Your task to perform on an android device: toggle improve location accuracy Image 0: 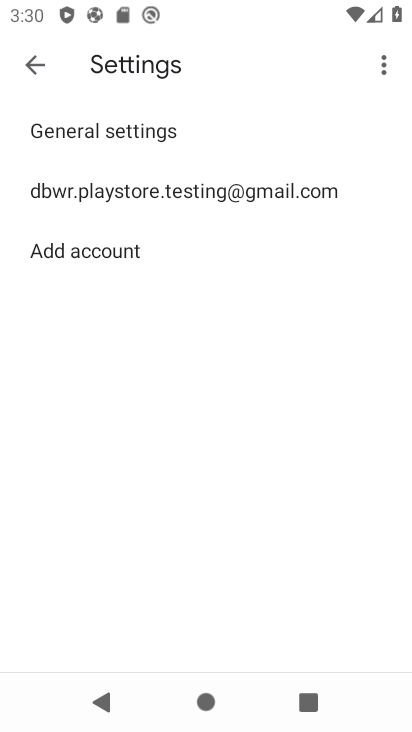
Step 0: press home button
Your task to perform on an android device: toggle improve location accuracy Image 1: 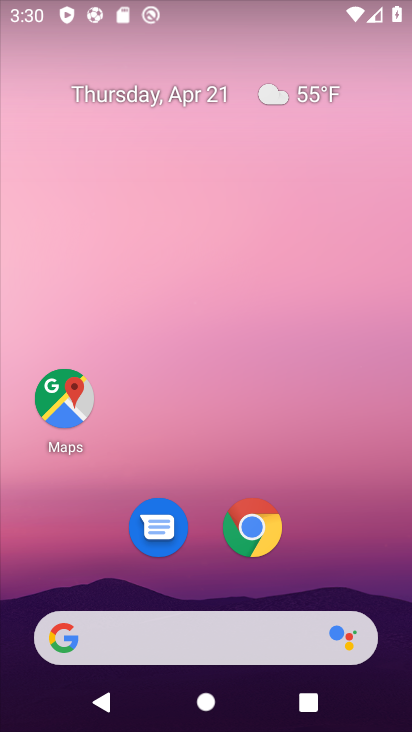
Step 1: drag from (364, 533) to (250, 179)
Your task to perform on an android device: toggle improve location accuracy Image 2: 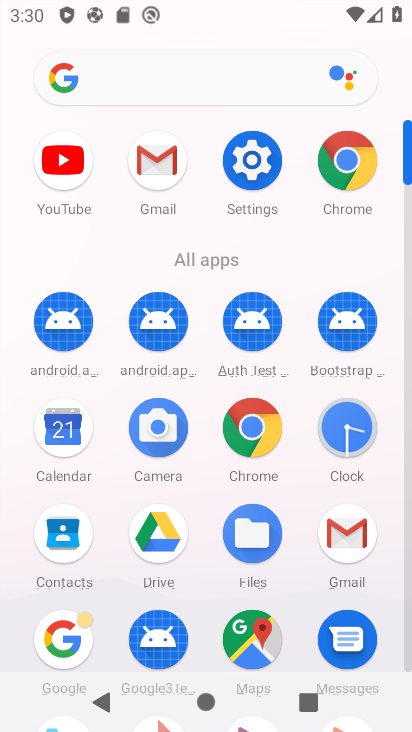
Step 2: click (242, 188)
Your task to perform on an android device: toggle improve location accuracy Image 3: 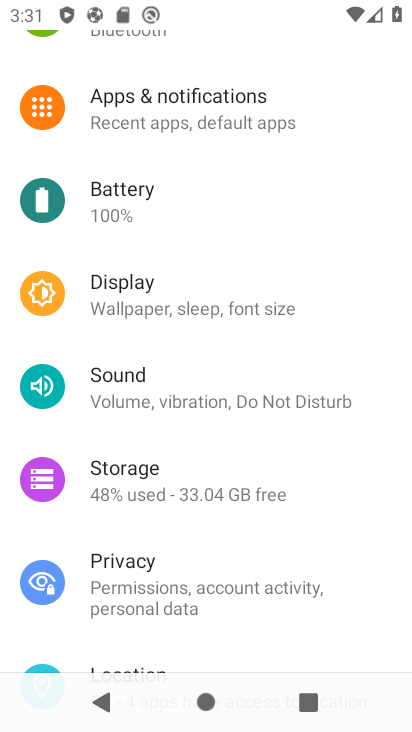
Step 3: drag from (276, 567) to (243, 139)
Your task to perform on an android device: toggle improve location accuracy Image 4: 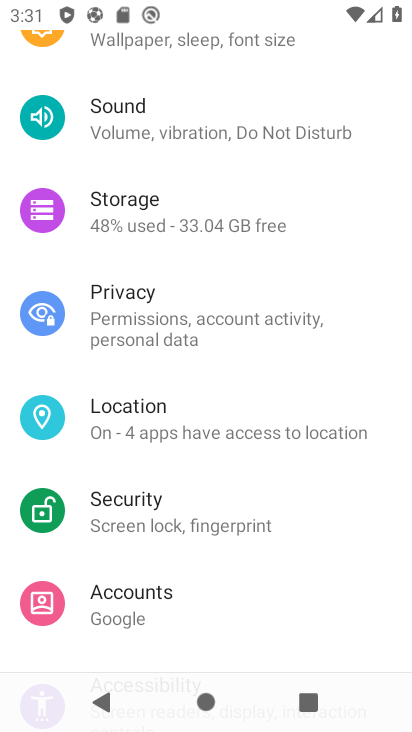
Step 4: click (221, 434)
Your task to perform on an android device: toggle improve location accuracy Image 5: 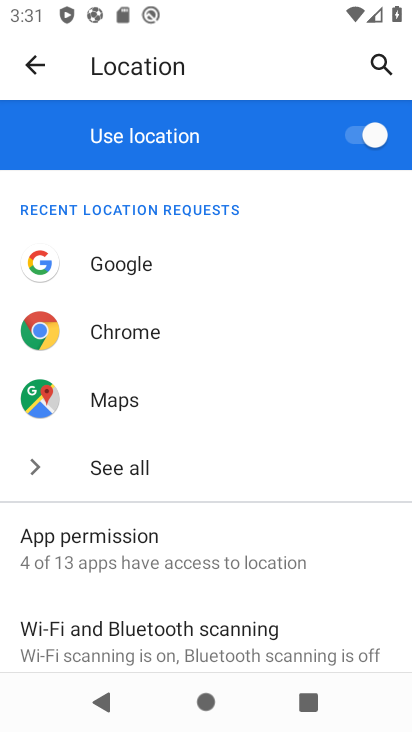
Step 5: drag from (263, 551) to (191, 141)
Your task to perform on an android device: toggle improve location accuracy Image 6: 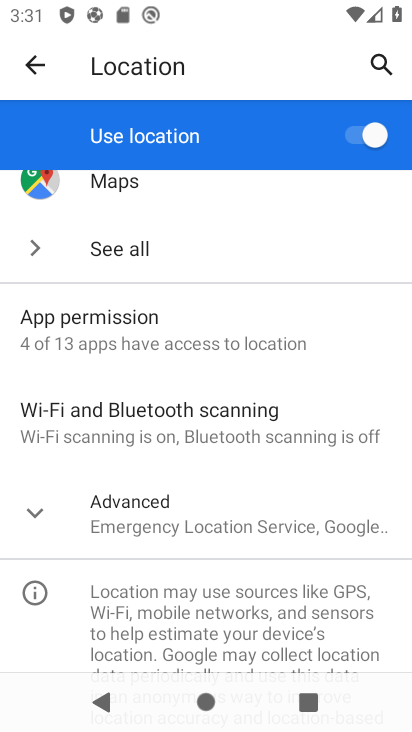
Step 6: click (294, 512)
Your task to perform on an android device: toggle improve location accuracy Image 7: 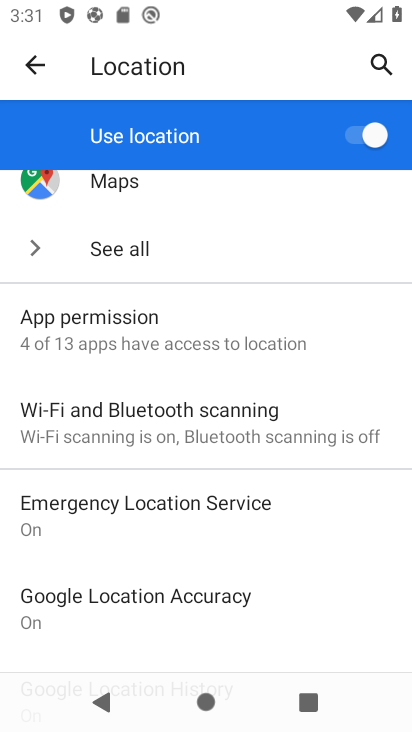
Step 7: click (291, 619)
Your task to perform on an android device: toggle improve location accuracy Image 8: 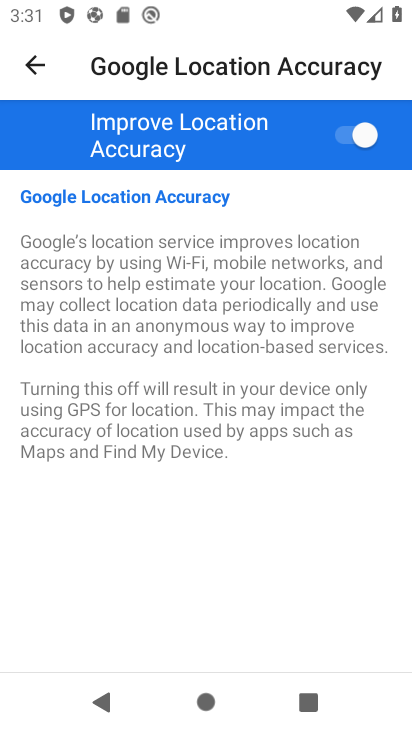
Step 8: click (345, 130)
Your task to perform on an android device: toggle improve location accuracy Image 9: 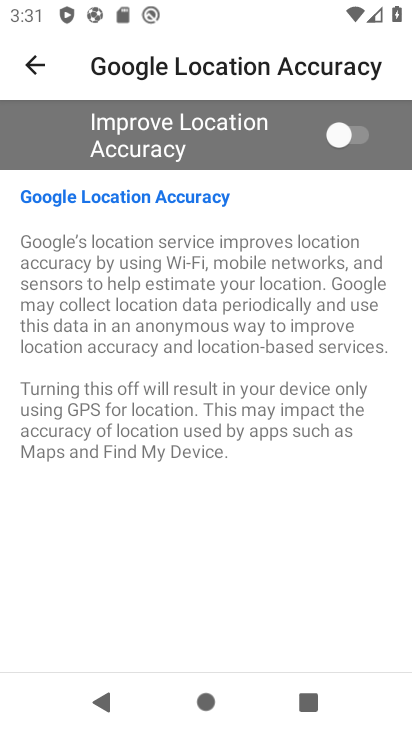
Step 9: task complete